Your task to perform on an android device: Open Amazon Image 0: 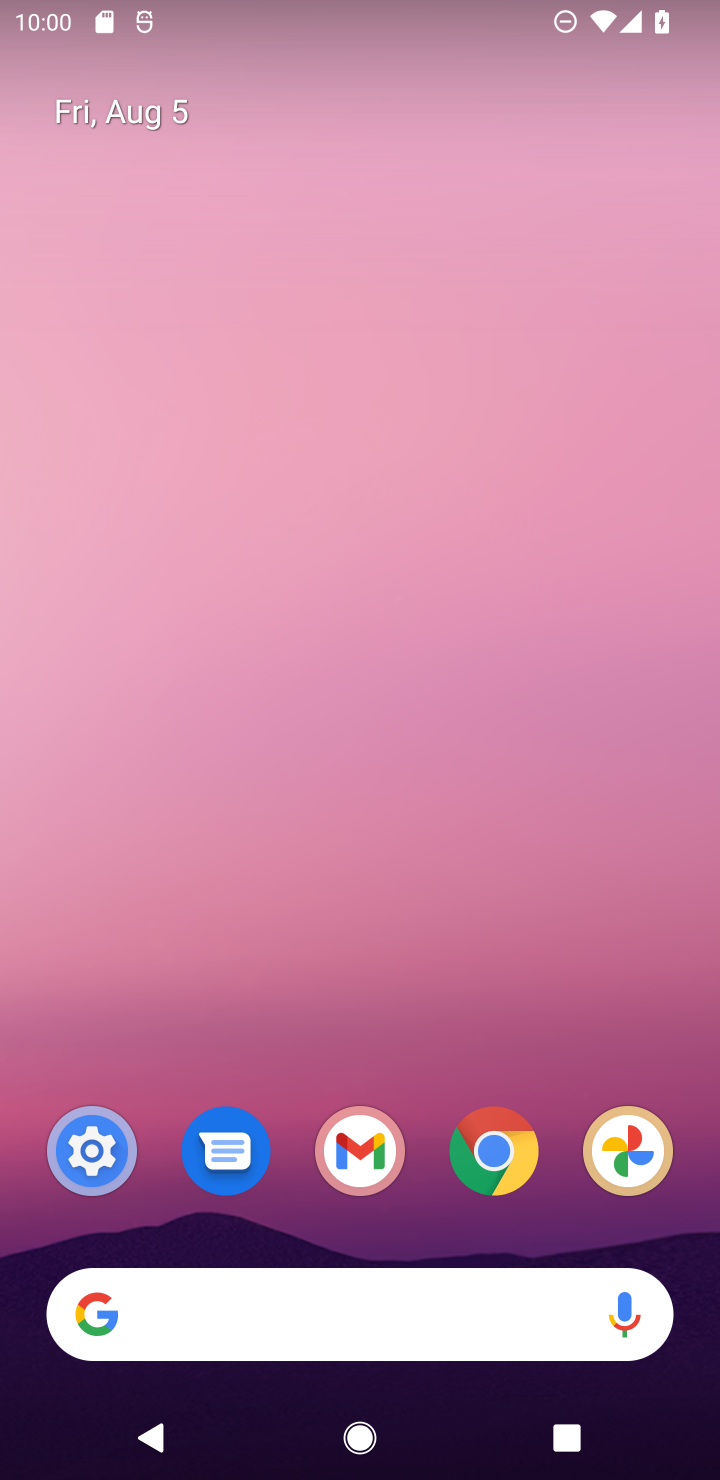
Step 0: click (469, 1169)
Your task to perform on an android device: Open Amazon Image 1: 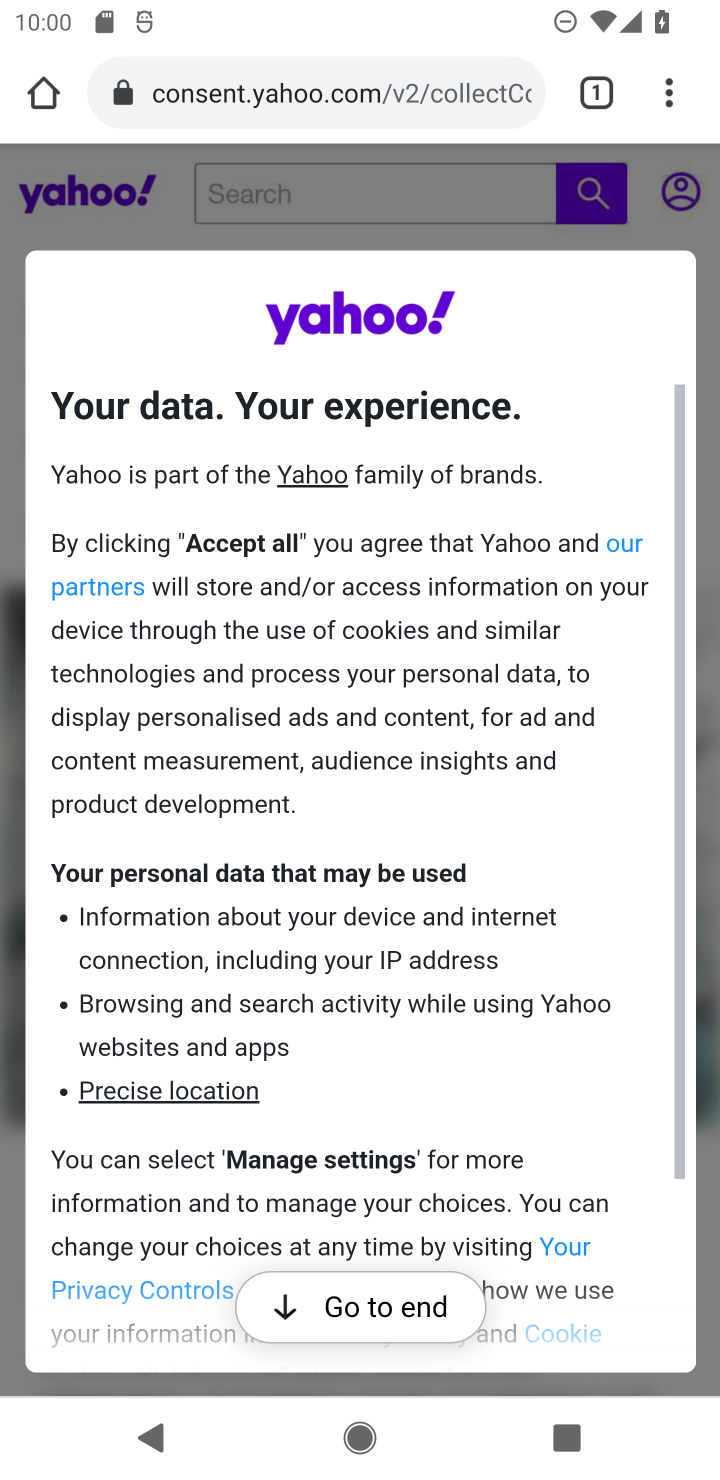
Step 1: click (348, 86)
Your task to perform on an android device: Open Amazon Image 2: 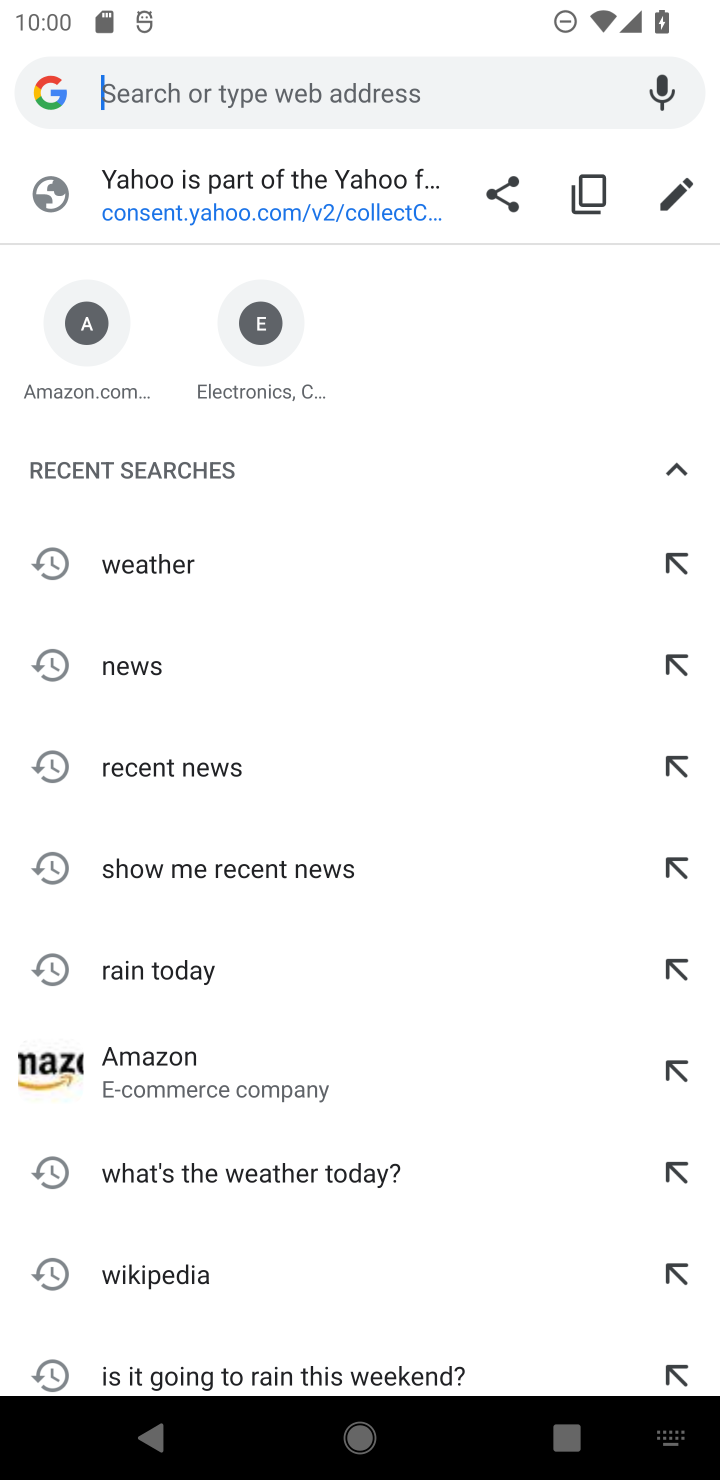
Step 2: type "www.amazon.com"
Your task to perform on an android device: Open Amazon Image 3: 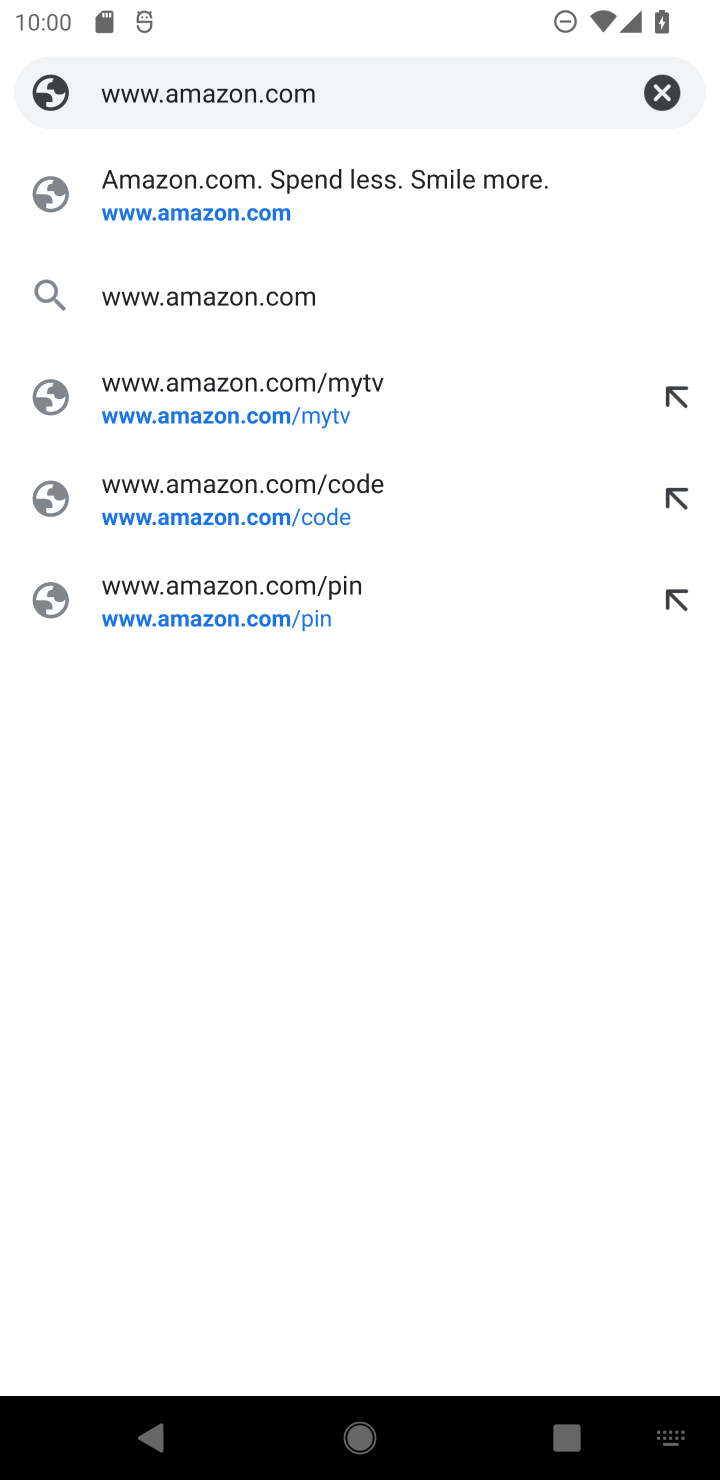
Step 3: click (176, 202)
Your task to perform on an android device: Open Amazon Image 4: 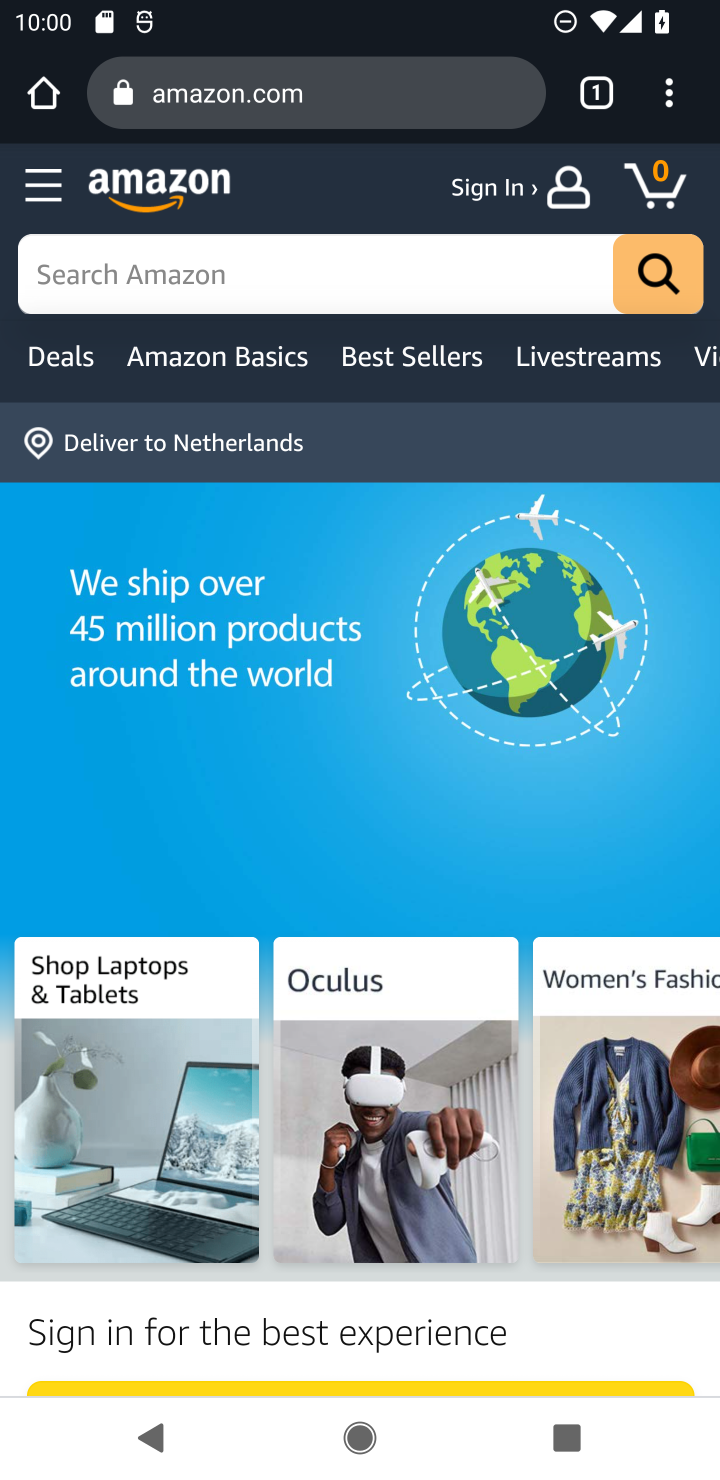
Step 4: task complete